Your task to perform on an android device: Go to wifi settings Image 0: 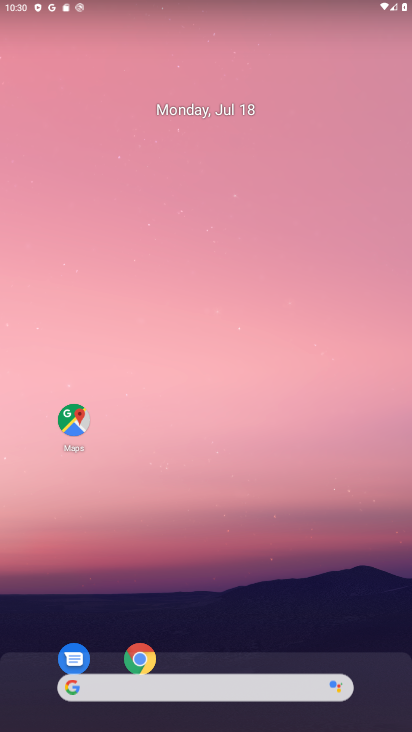
Step 0: drag from (324, 678) to (321, 152)
Your task to perform on an android device: Go to wifi settings Image 1: 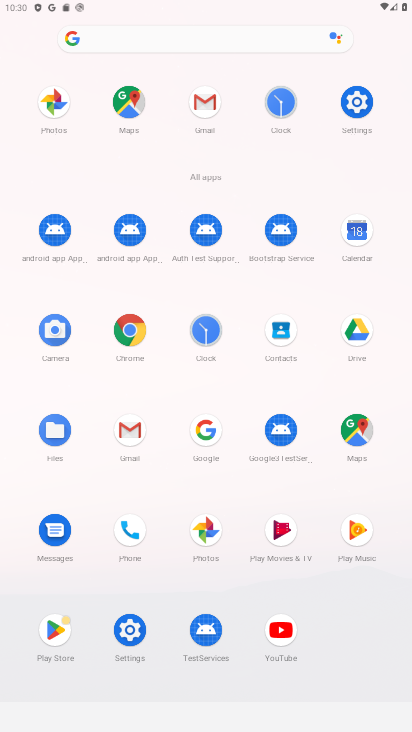
Step 1: click (256, 4)
Your task to perform on an android device: Go to wifi settings Image 2: 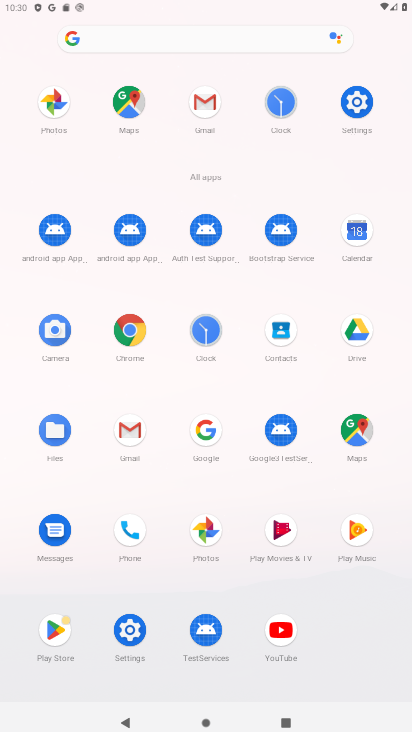
Step 2: drag from (260, 43) to (281, 371)
Your task to perform on an android device: Go to wifi settings Image 3: 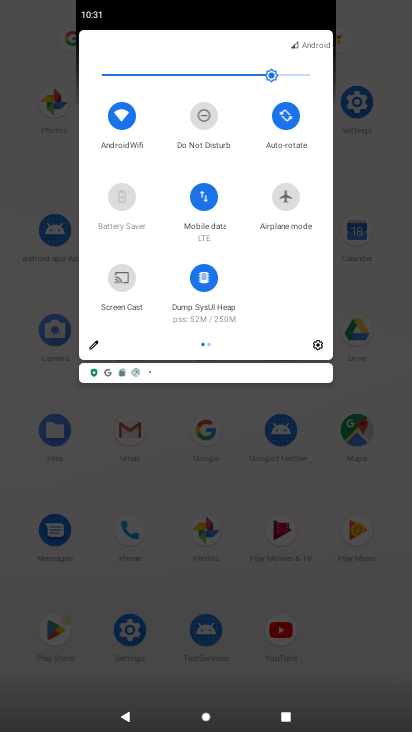
Step 3: click (118, 133)
Your task to perform on an android device: Go to wifi settings Image 4: 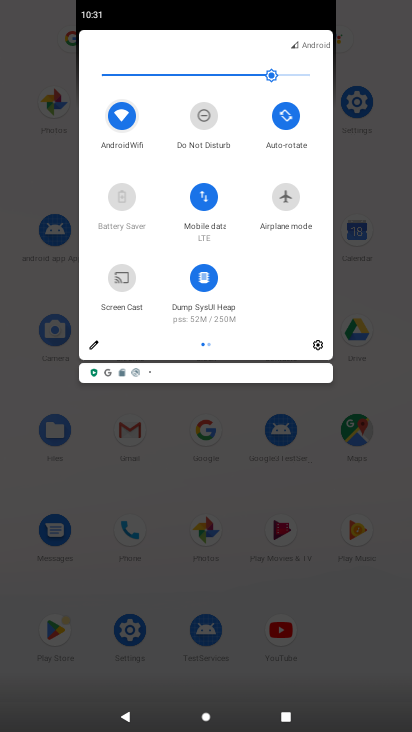
Step 4: click (118, 133)
Your task to perform on an android device: Go to wifi settings Image 5: 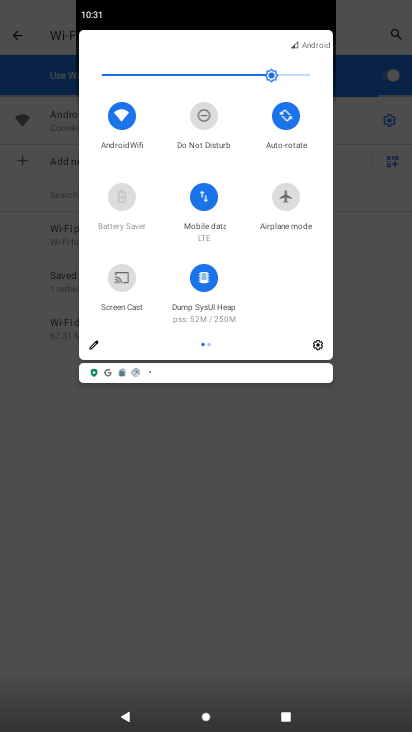
Step 5: click (126, 136)
Your task to perform on an android device: Go to wifi settings Image 6: 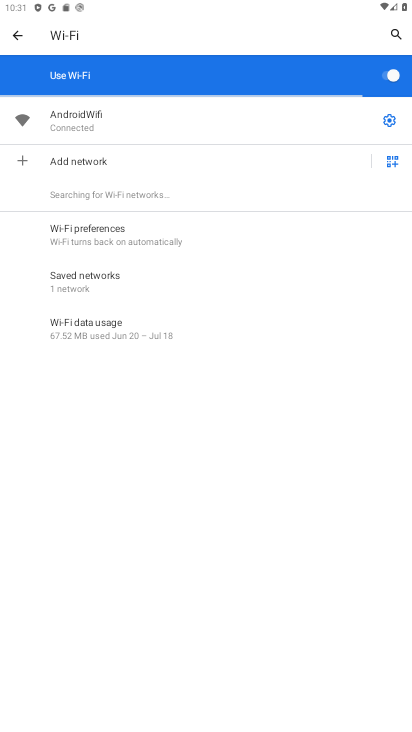
Step 6: task complete